Your task to perform on an android device: open app "Pinterest" Image 0: 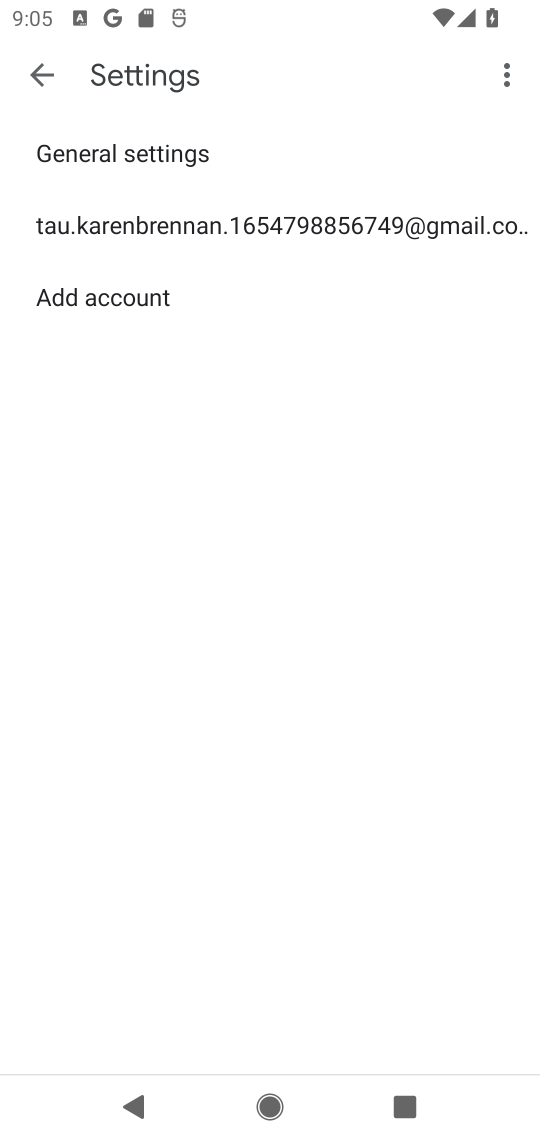
Step 0: press home button
Your task to perform on an android device: open app "Pinterest" Image 1: 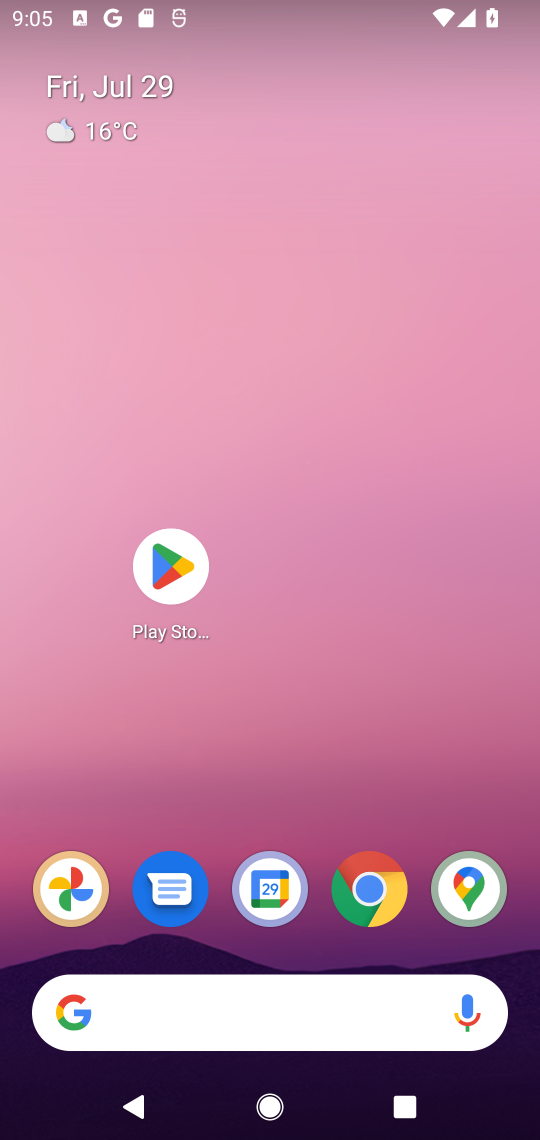
Step 1: click (175, 559)
Your task to perform on an android device: open app "Pinterest" Image 2: 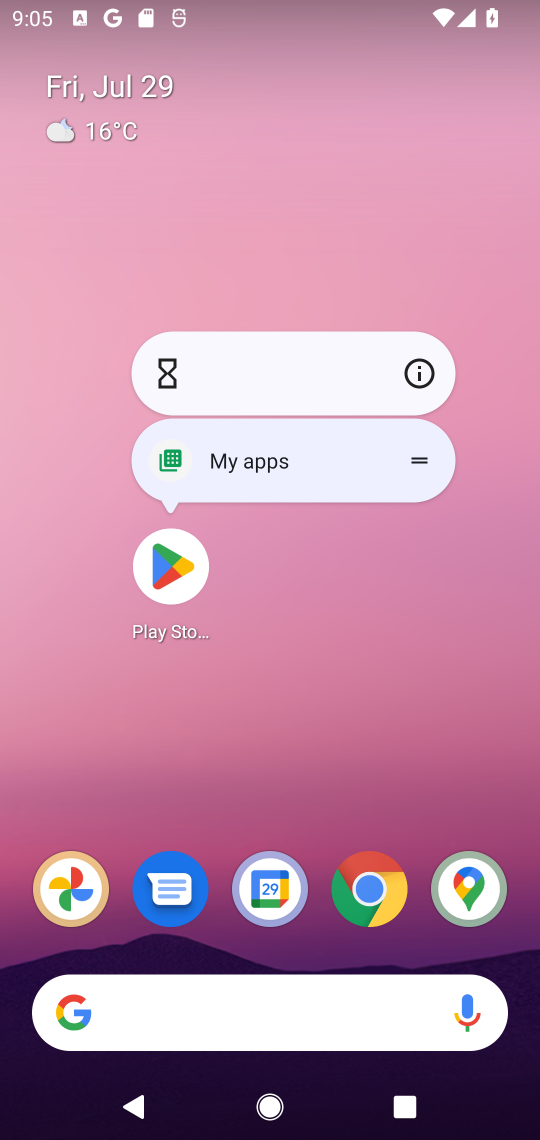
Step 2: click (171, 570)
Your task to perform on an android device: open app "Pinterest" Image 3: 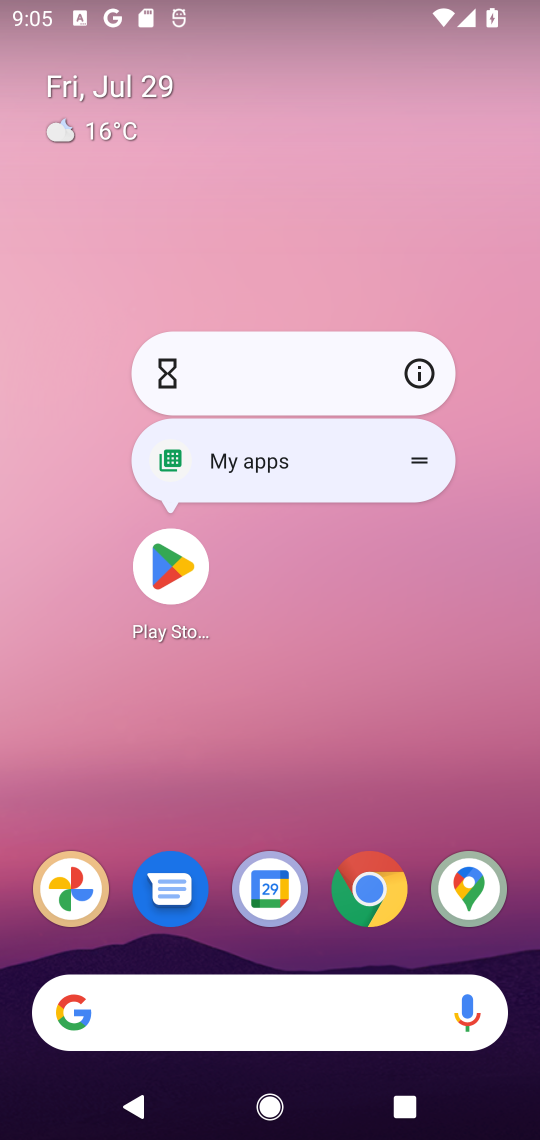
Step 3: click (171, 570)
Your task to perform on an android device: open app "Pinterest" Image 4: 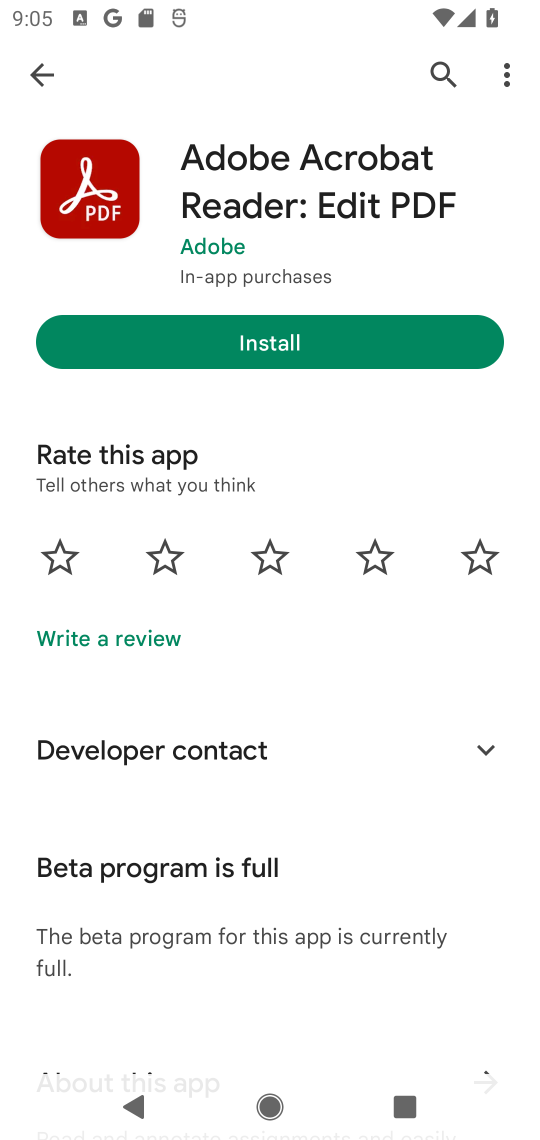
Step 4: click (439, 56)
Your task to perform on an android device: open app "Pinterest" Image 5: 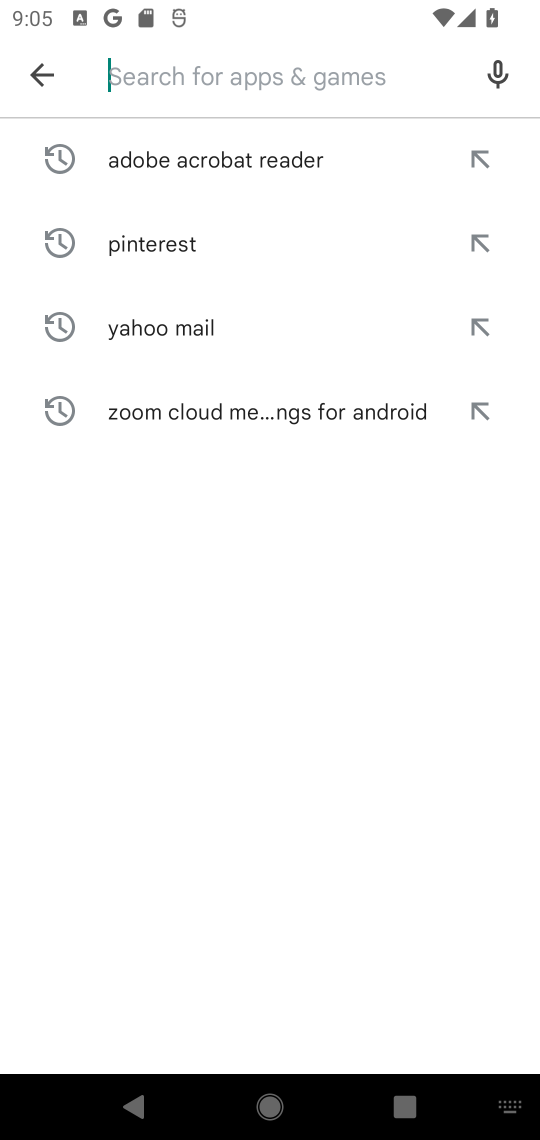
Step 5: click (140, 239)
Your task to perform on an android device: open app "Pinterest" Image 6: 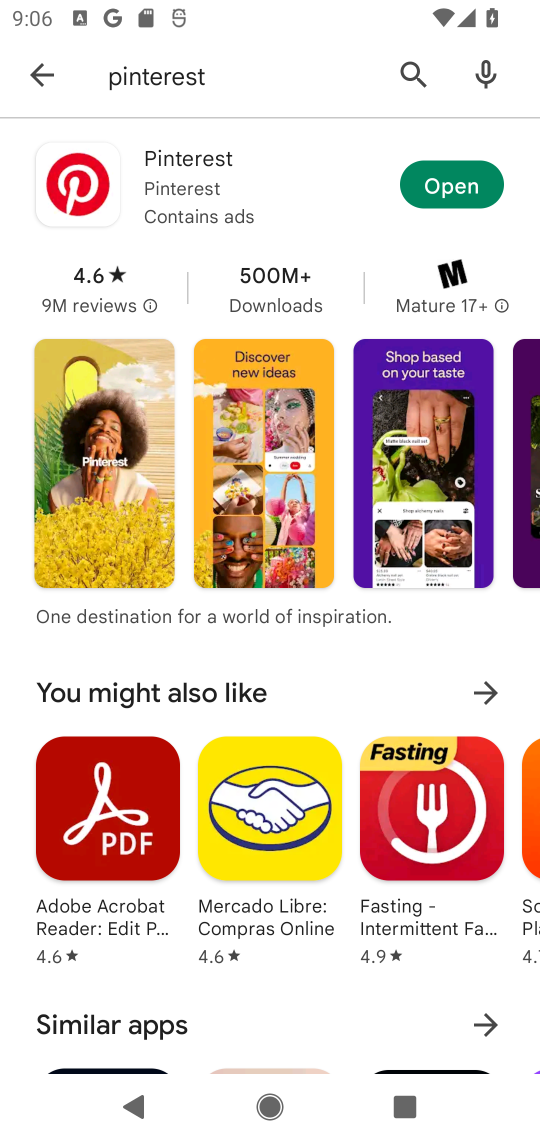
Step 6: click (438, 184)
Your task to perform on an android device: open app "Pinterest" Image 7: 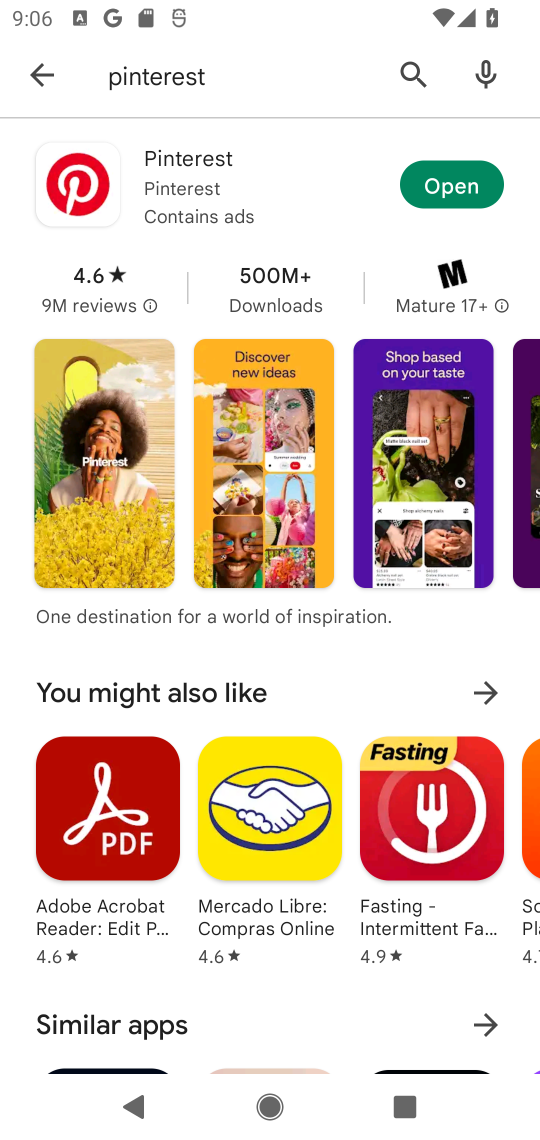
Step 7: click (440, 186)
Your task to perform on an android device: open app "Pinterest" Image 8: 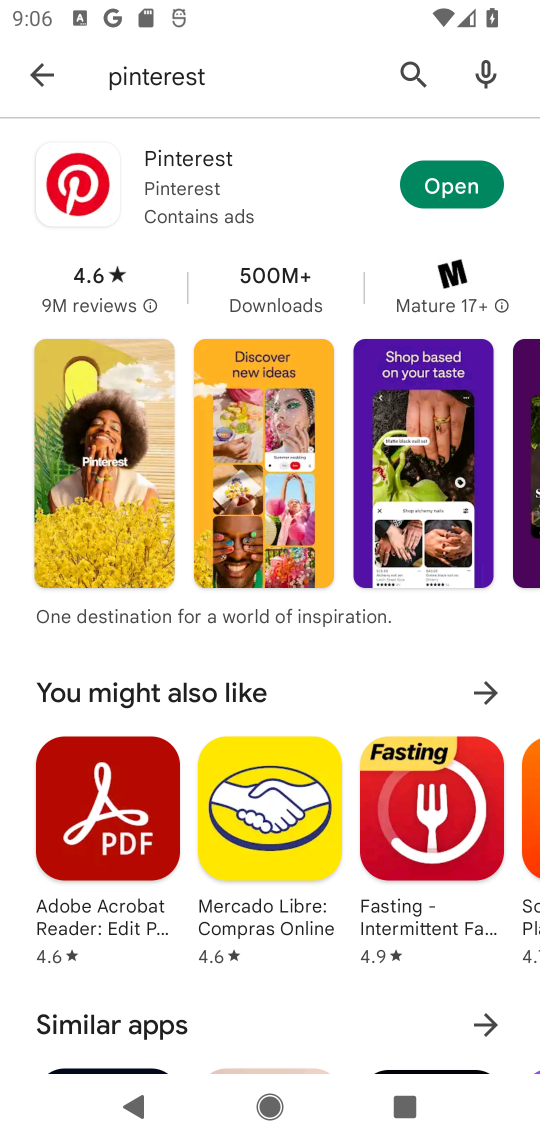
Step 8: click (452, 181)
Your task to perform on an android device: open app "Pinterest" Image 9: 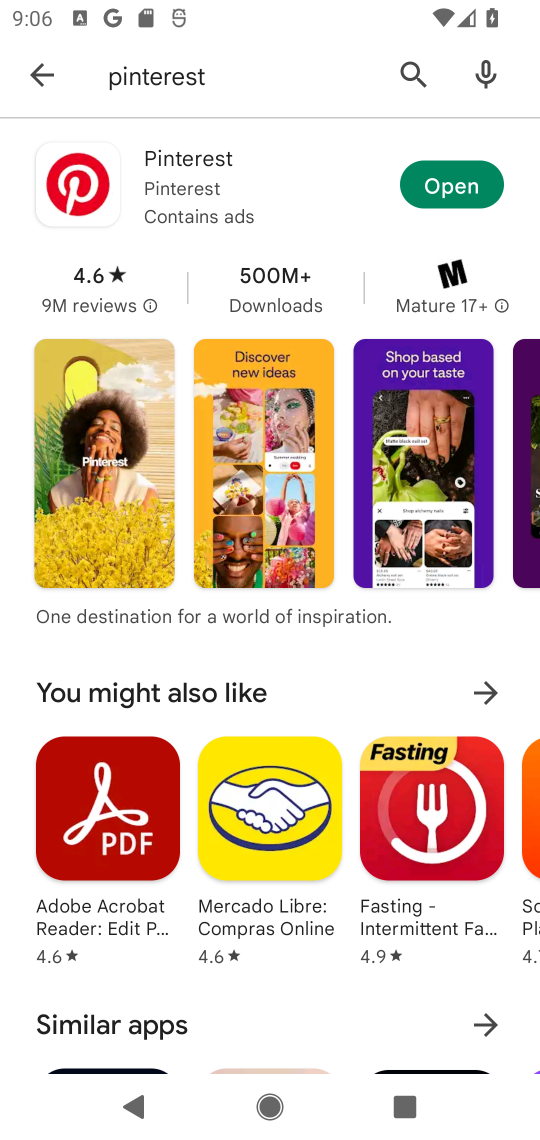
Step 9: drag from (214, 959) to (475, 75)
Your task to perform on an android device: open app "Pinterest" Image 10: 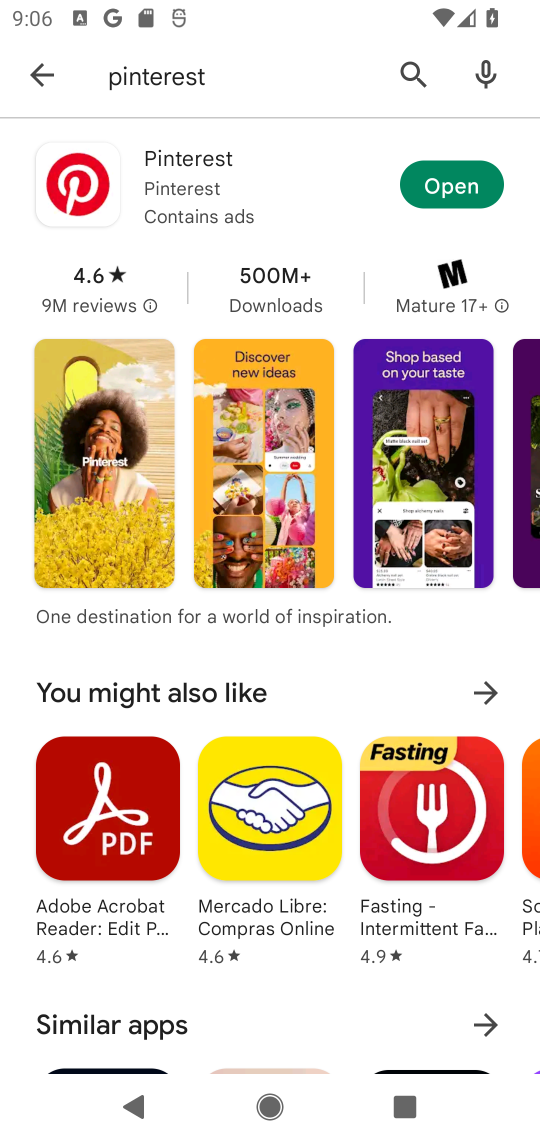
Step 10: drag from (338, 201) to (276, 987)
Your task to perform on an android device: open app "Pinterest" Image 11: 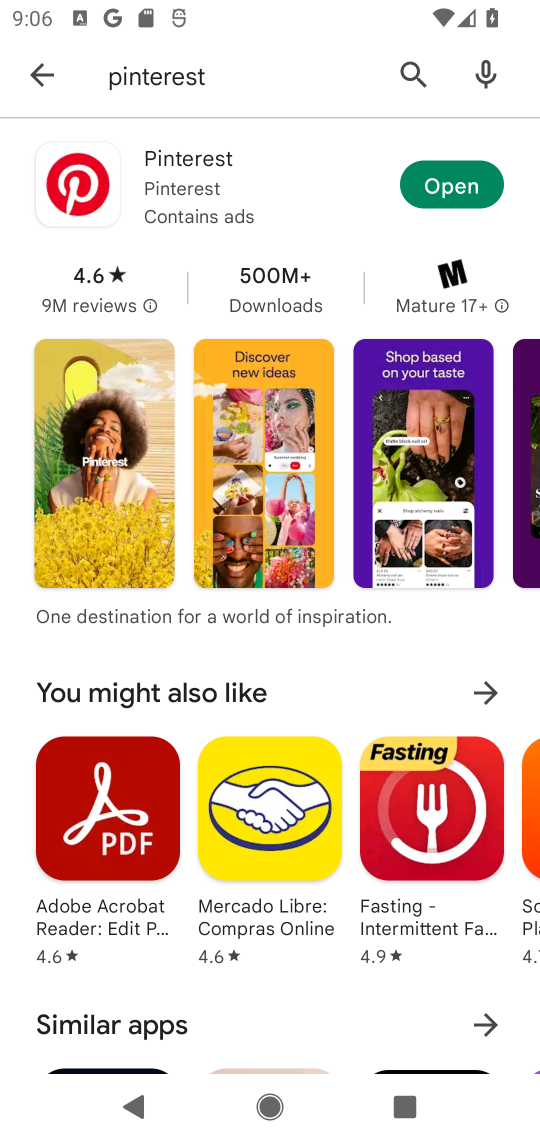
Step 11: click (463, 183)
Your task to perform on an android device: open app "Pinterest" Image 12: 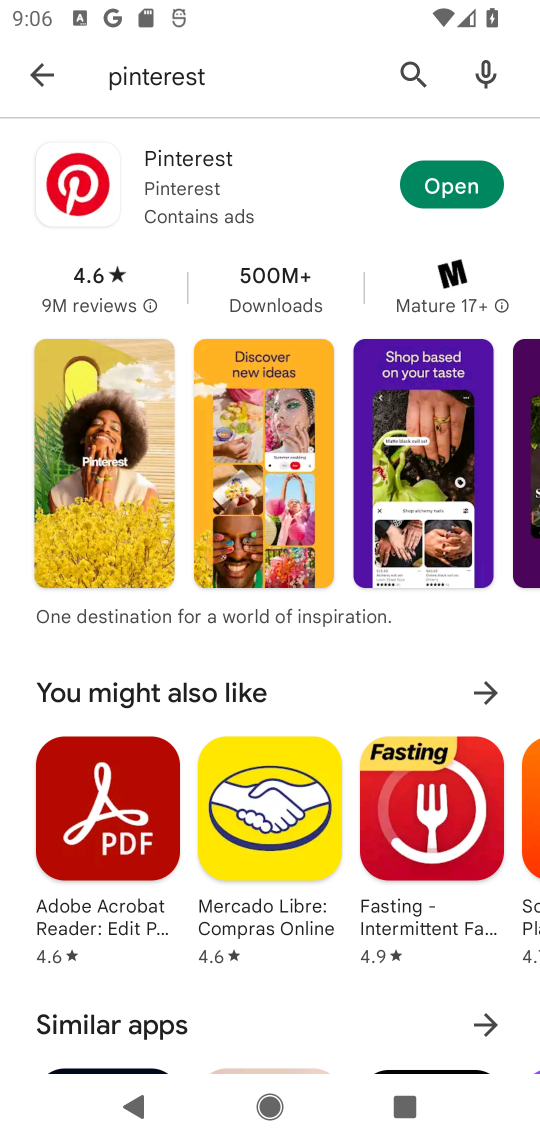
Step 12: click (463, 182)
Your task to perform on an android device: open app "Pinterest" Image 13: 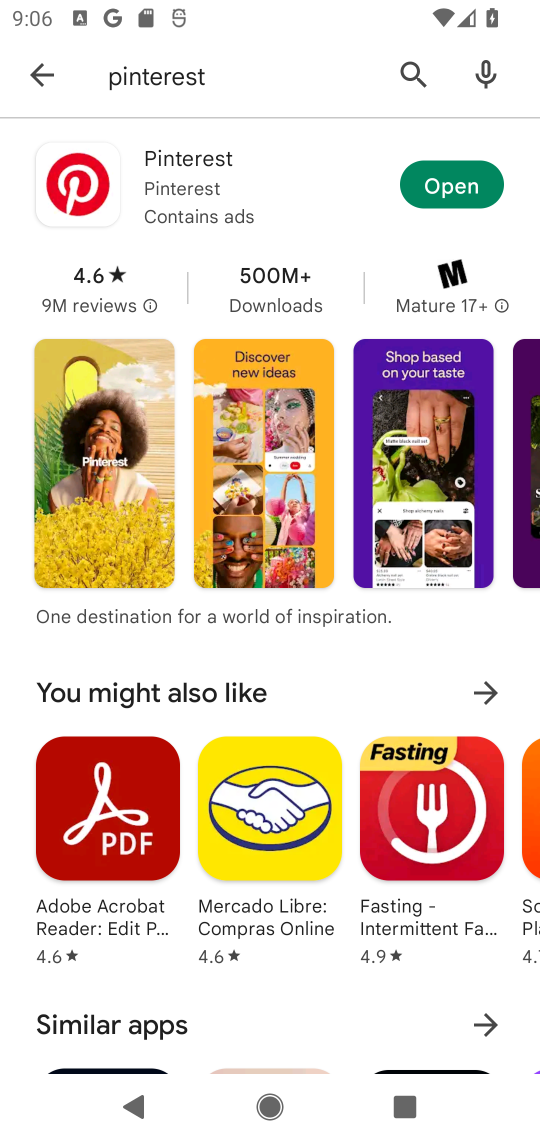
Step 13: task complete